Your task to perform on an android device: turn on airplane mode Image 0: 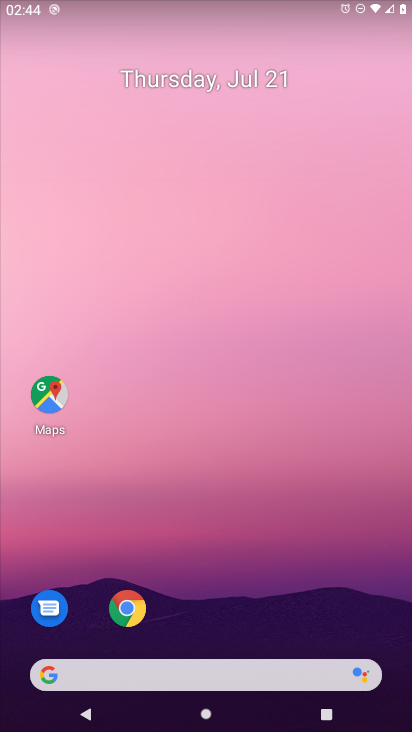
Step 0: press home button
Your task to perform on an android device: turn on airplane mode Image 1: 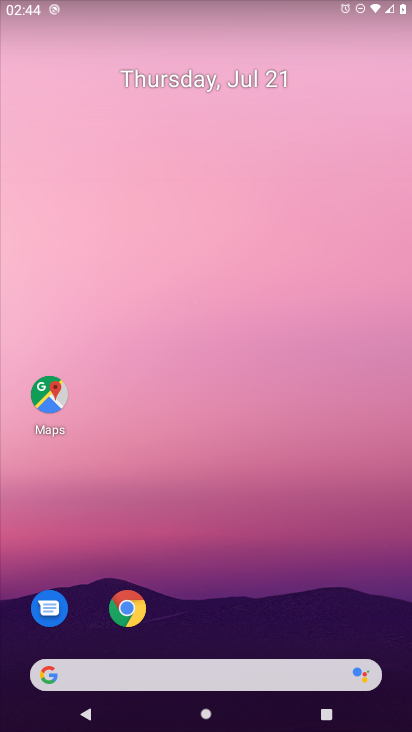
Step 1: drag from (207, 4) to (230, 429)
Your task to perform on an android device: turn on airplane mode Image 2: 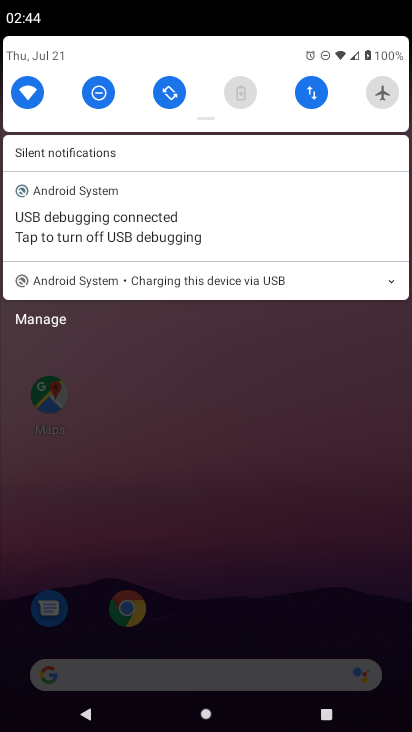
Step 2: click (374, 92)
Your task to perform on an android device: turn on airplane mode Image 3: 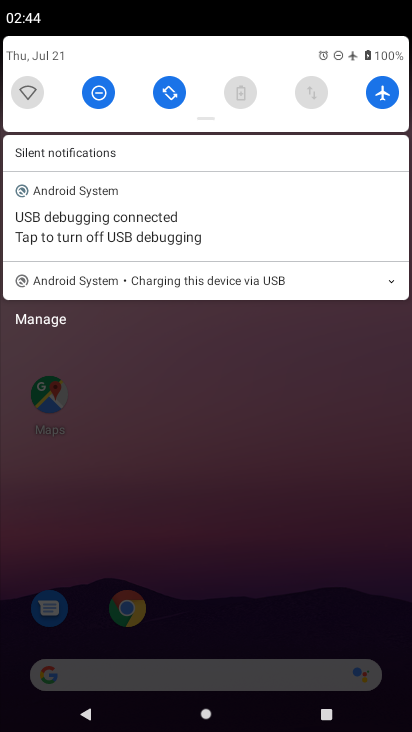
Step 3: task complete